Your task to perform on an android device: turn on sleep mode Image 0: 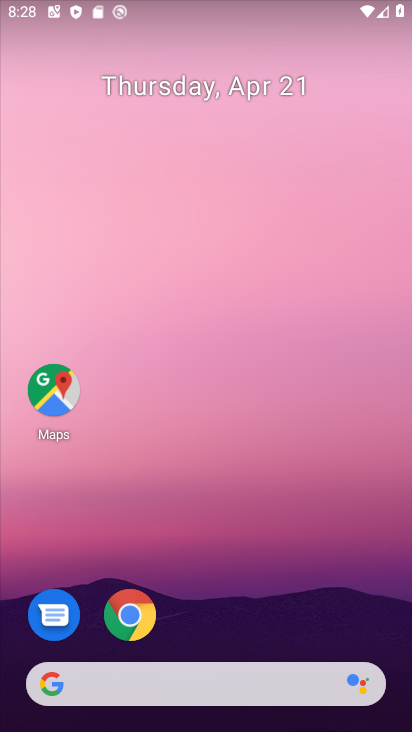
Step 0: drag from (233, 596) to (222, 91)
Your task to perform on an android device: turn on sleep mode Image 1: 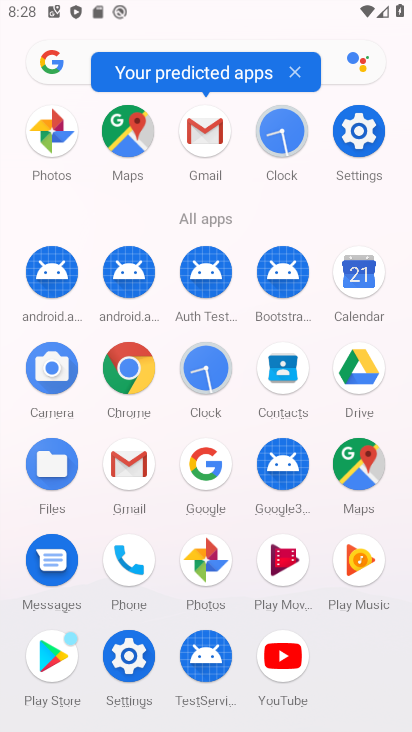
Step 1: click (357, 135)
Your task to perform on an android device: turn on sleep mode Image 2: 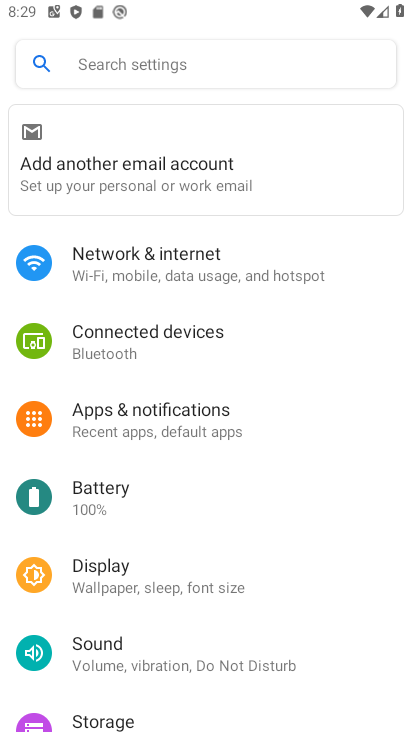
Step 2: click (173, 582)
Your task to perform on an android device: turn on sleep mode Image 3: 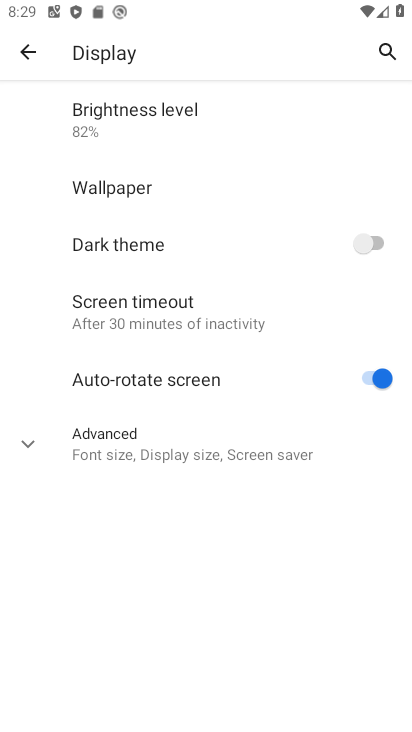
Step 3: click (162, 315)
Your task to perform on an android device: turn on sleep mode Image 4: 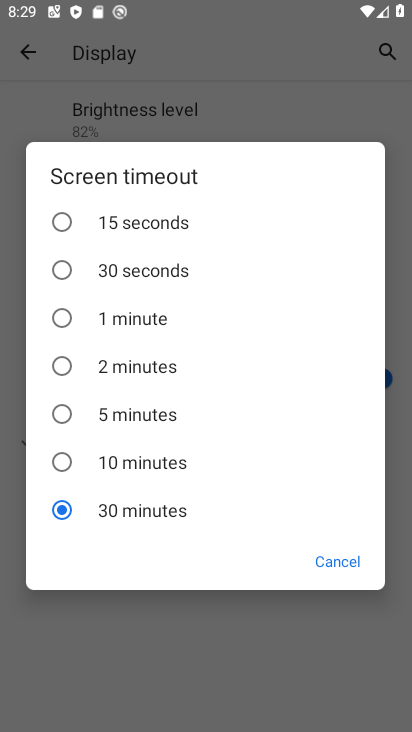
Step 4: task complete